Your task to perform on an android device: turn on improve location accuracy Image 0: 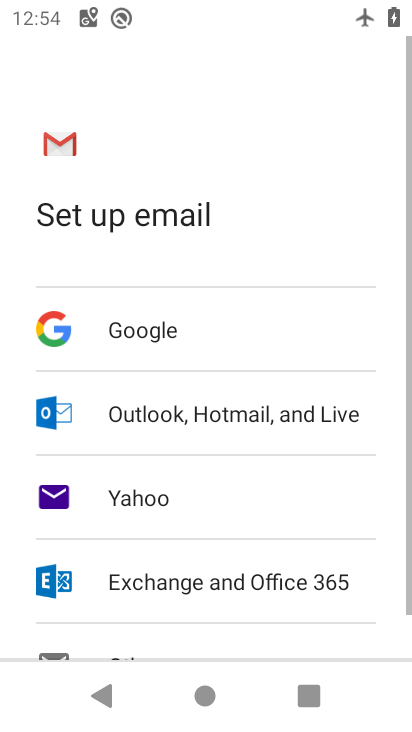
Step 0: press back button
Your task to perform on an android device: turn on improve location accuracy Image 1: 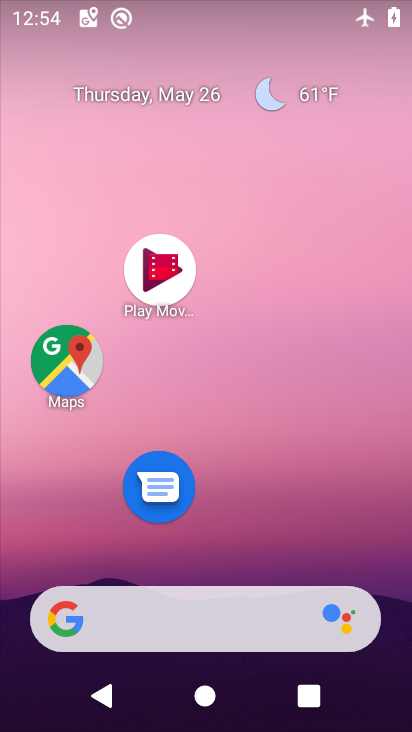
Step 1: drag from (270, 688) to (188, 233)
Your task to perform on an android device: turn on improve location accuracy Image 2: 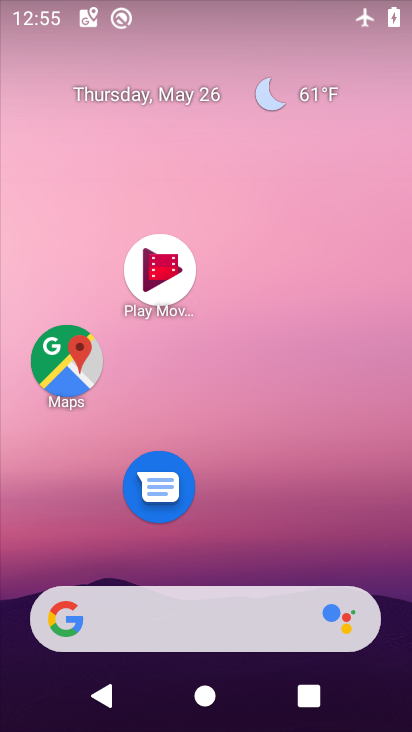
Step 2: drag from (248, 654) to (269, 220)
Your task to perform on an android device: turn on improve location accuracy Image 3: 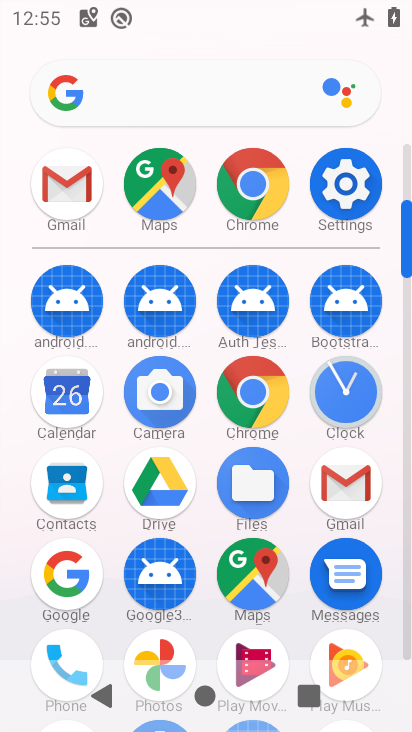
Step 3: click (346, 191)
Your task to perform on an android device: turn on improve location accuracy Image 4: 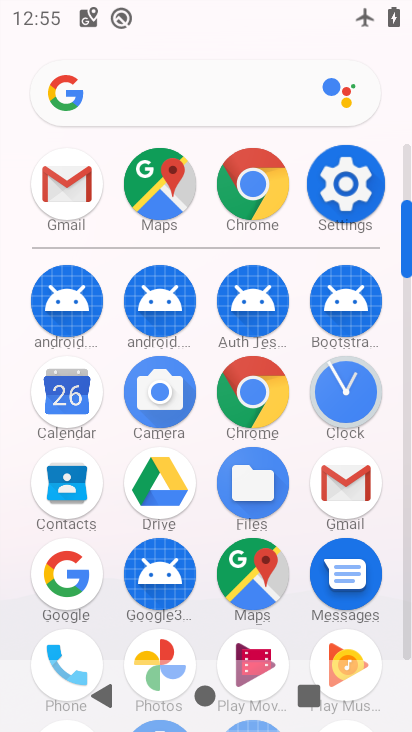
Step 4: click (359, 172)
Your task to perform on an android device: turn on improve location accuracy Image 5: 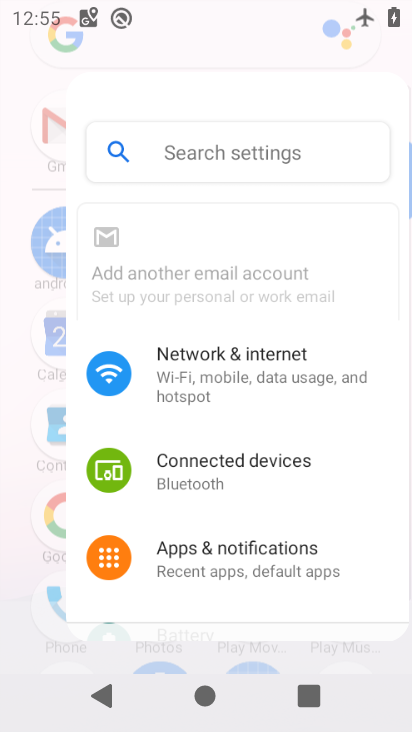
Step 5: click (347, 176)
Your task to perform on an android device: turn on improve location accuracy Image 6: 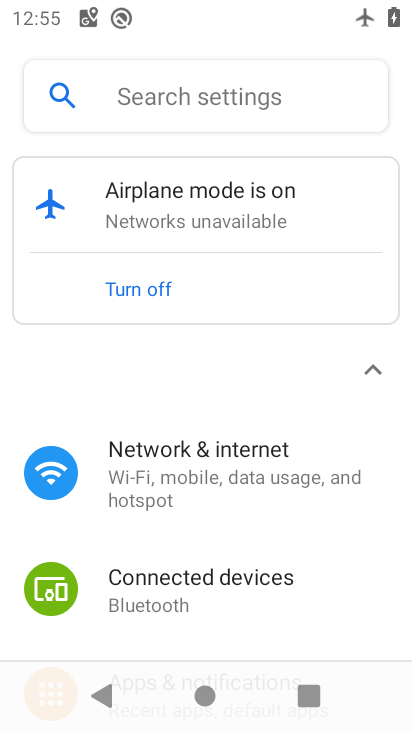
Step 6: drag from (186, 578) to (261, 213)
Your task to perform on an android device: turn on improve location accuracy Image 7: 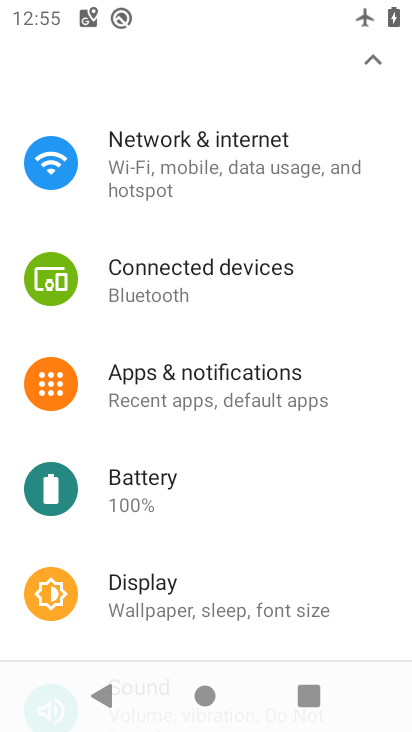
Step 7: drag from (177, 538) to (186, 291)
Your task to perform on an android device: turn on improve location accuracy Image 8: 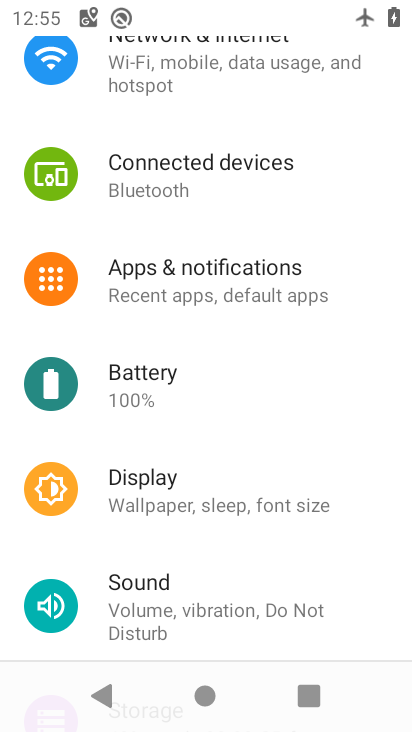
Step 8: drag from (173, 545) to (181, 302)
Your task to perform on an android device: turn on improve location accuracy Image 9: 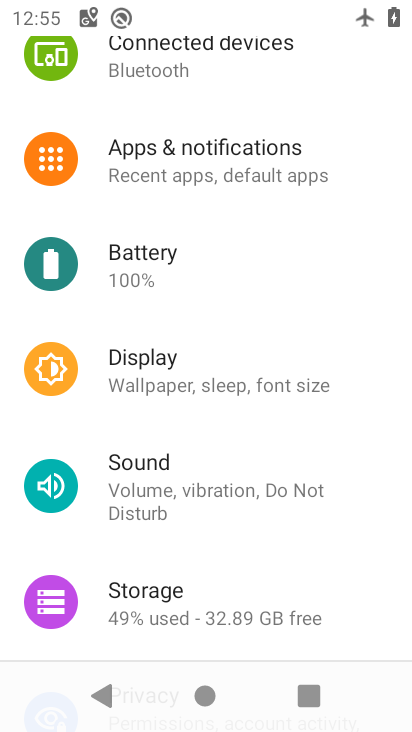
Step 9: drag from (235, 518) to (249, 149)
Your task to perform on an android device: turn on improve location accuracy Image 10: 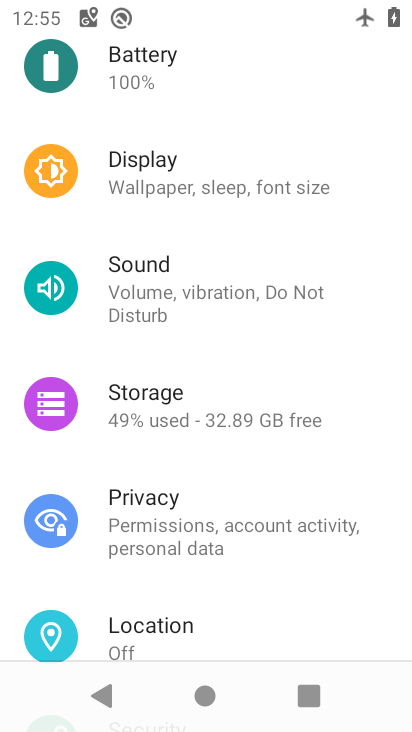
Step 10: drag from (188, 247) to (188, 125)
Your task to perform on an android device: turn on improve location accuracy Image 11: 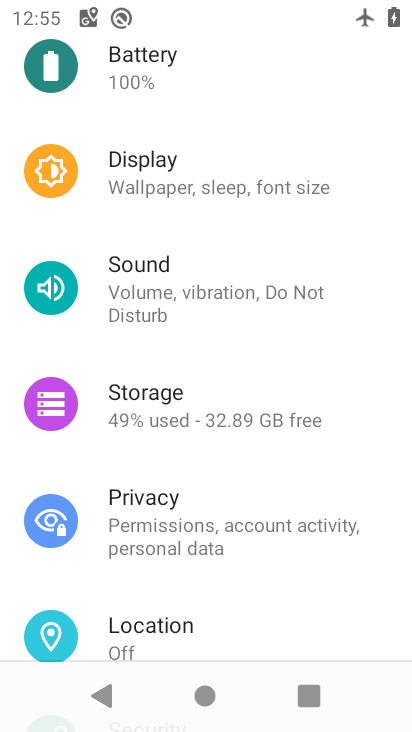
Step 11: drag from (165, 521) to (174, 194)
Your task to perform on an android device: turn on improve location accuracy Image 12: 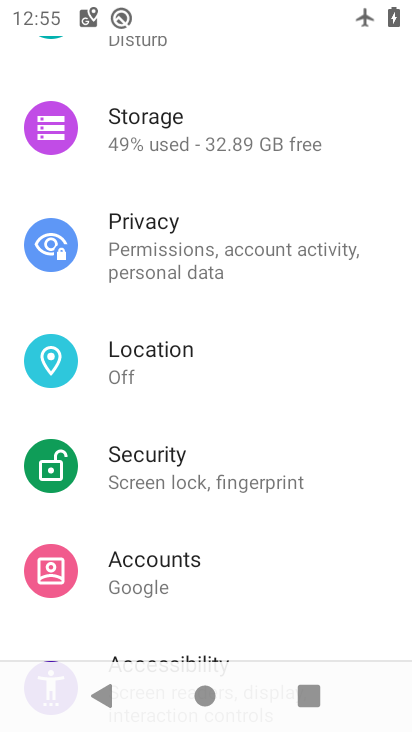
Step 12: drag from (189, 411) to (136, 98)
Your task to perform on an android device: turn on improve location accuracy Image 13: 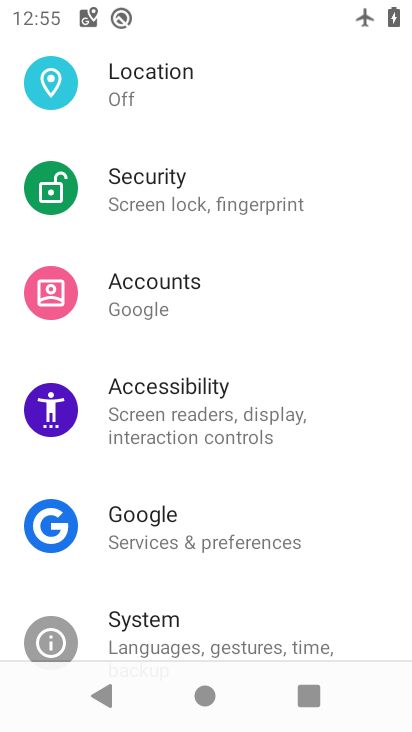
Step 13: click (133, 89)
Your task to perform on an android device: turn on improve location accuracy Image 14: 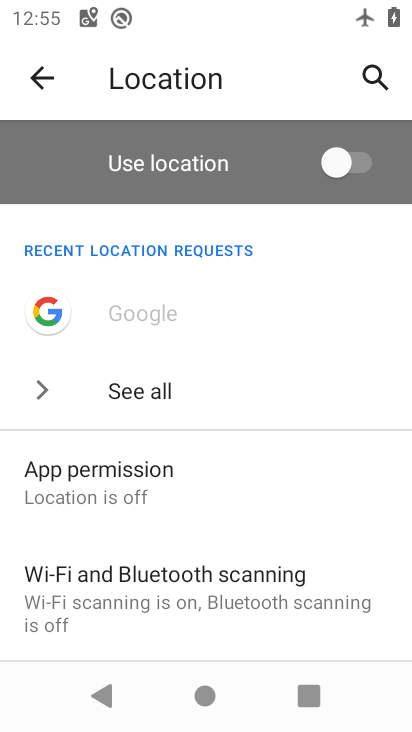
Step 14: drag from (162, 446) to (145, 222)
Your task to perform on an android device: turn on improve location accuracy Image 15: 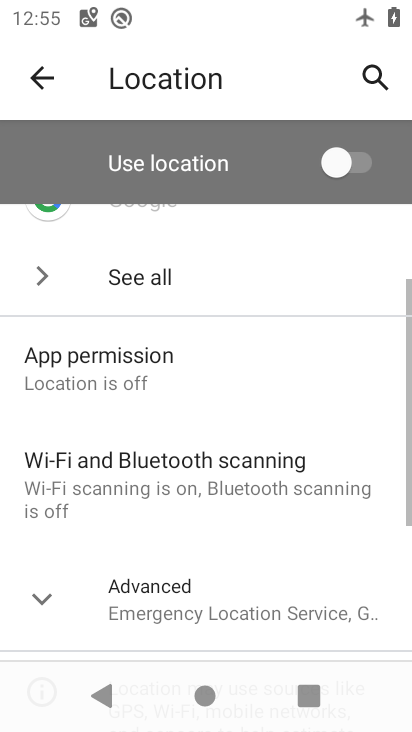
Step 15: drag from (196, 405) to (194, 47)
Your task to perform on an android device: turn on improve location accuracy Image 16: 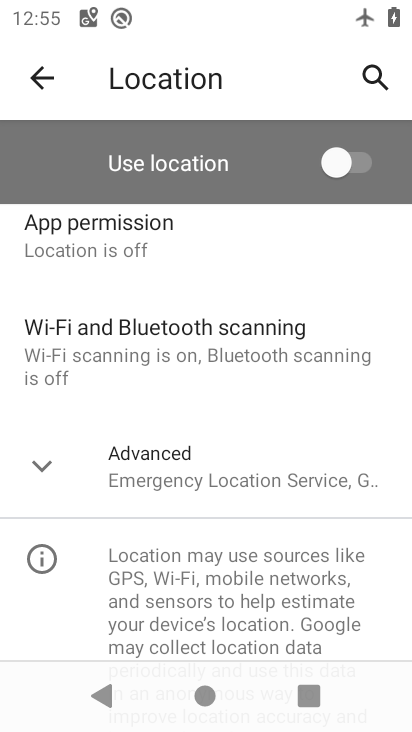
Step 16: click (146, 451)
Your task to perform on an android device: turn on improve location accuracy Image 17: 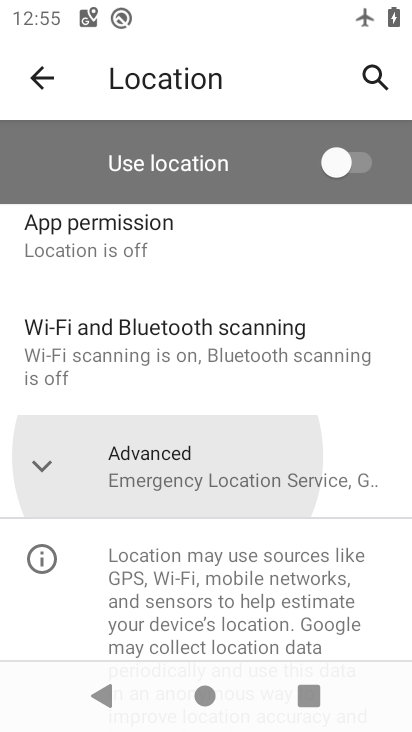
Step 17: click (146, 451)
Your task to perform on an android device: turn on improve location accuracy Image 18: 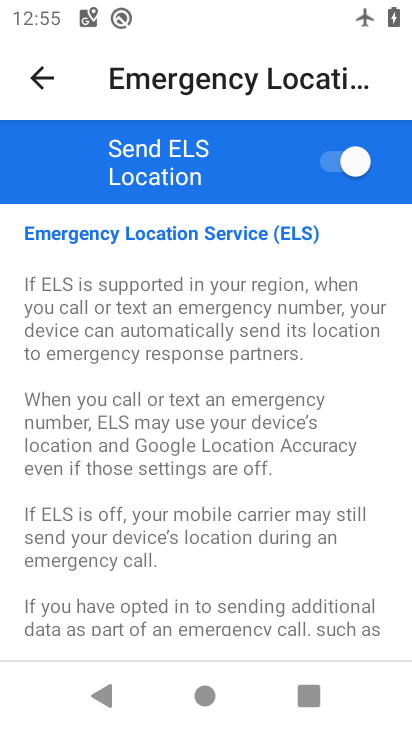
Step 18: click (40, 80)
Your task to perform on an android device: turn on improve location accuracy Image 19: 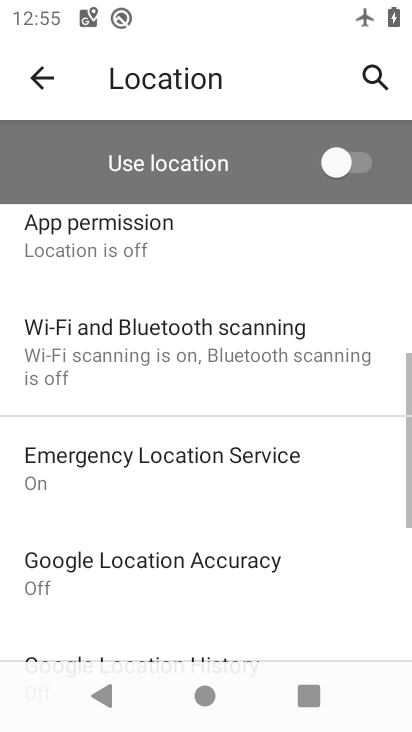
Step 19: drag from (200, 557) to (192, 202)
Your task to perform on an android device: turn on improve location accuracy Image 20: 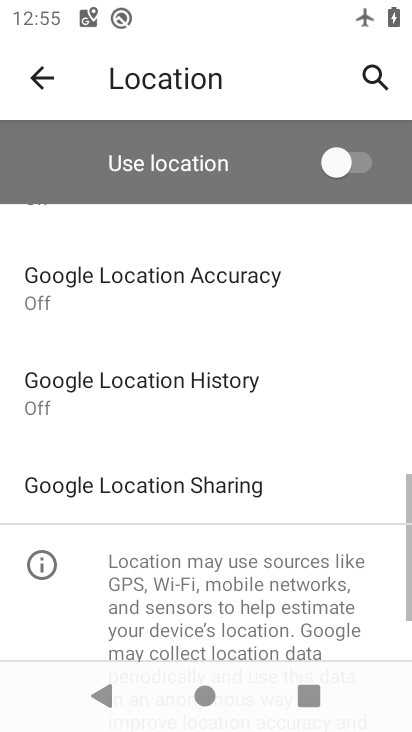
Step 20: drag from (212, 478) to (186, 323)
Your task to perform on an android device: turn on improve location accuracy Image 21: 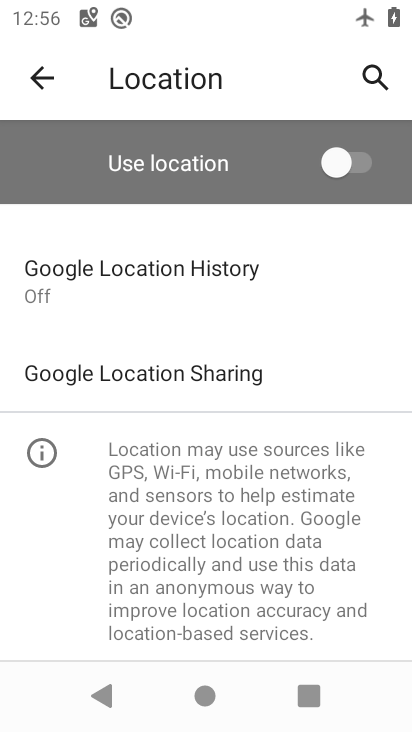
Step 21: drag from (173, 244) to (173, 474)
Your task to perform on an android device: turn on improve location accuracy Image 22: 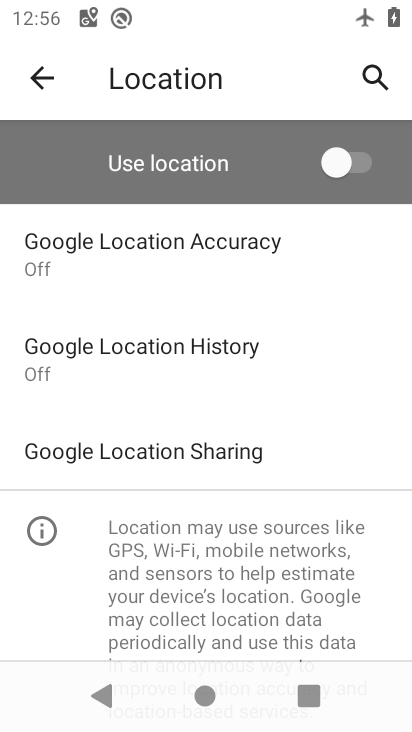
Step 22: click (116, 244)
Your task to perform on an android device: turn on improve location accuracy Image 23: 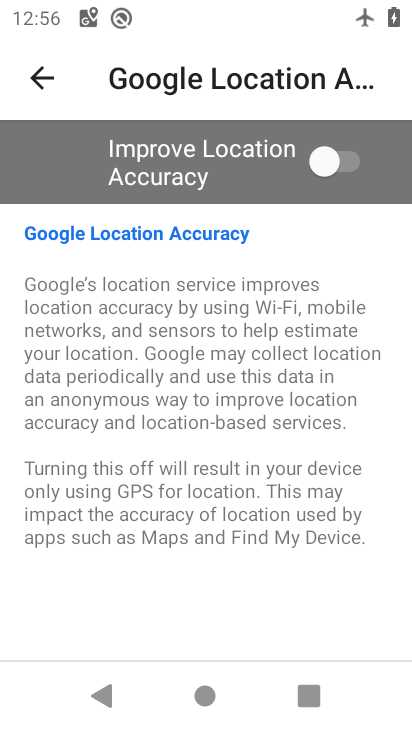
Step 23: click (319, 156)
Your task to perform on an android device: turn on improve location accuracy Image 24: 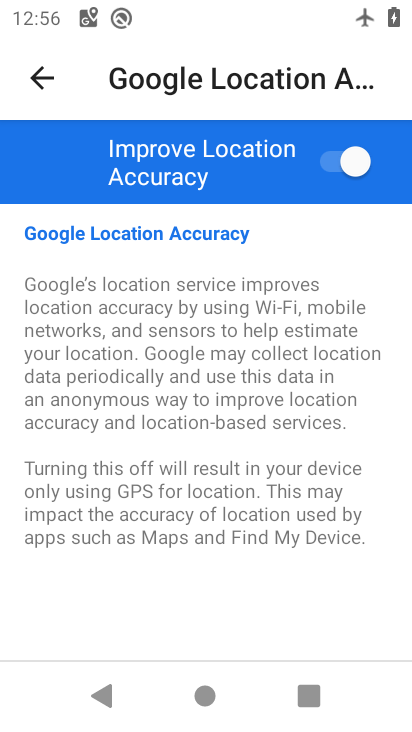
Step 24: task complete